Your task to perform on an android device: Open wifi settings Image 0: 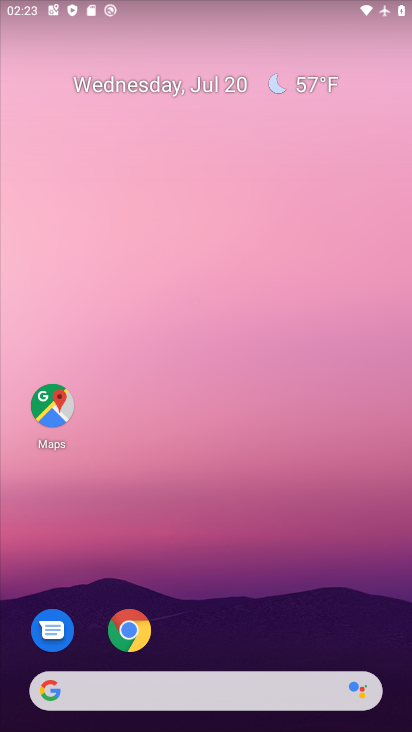
Step 0: drag from (290, 493) to (333, 67)
Your task to perform on an android device: Open wifi settings Image 1: 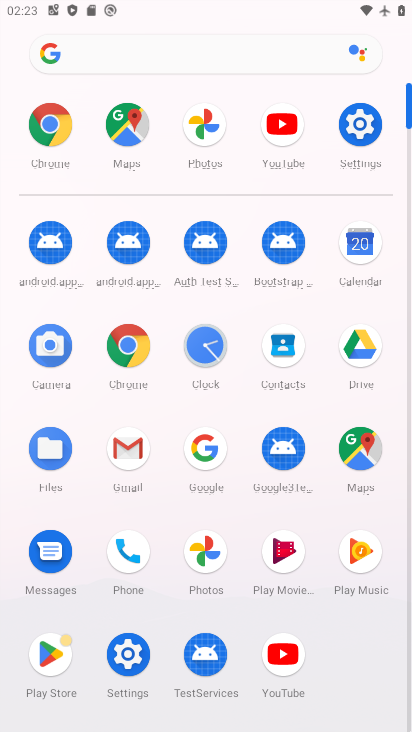
Step 1: click (366, 112)
Your task to perform on an android device: Open wifi settings Image 2: 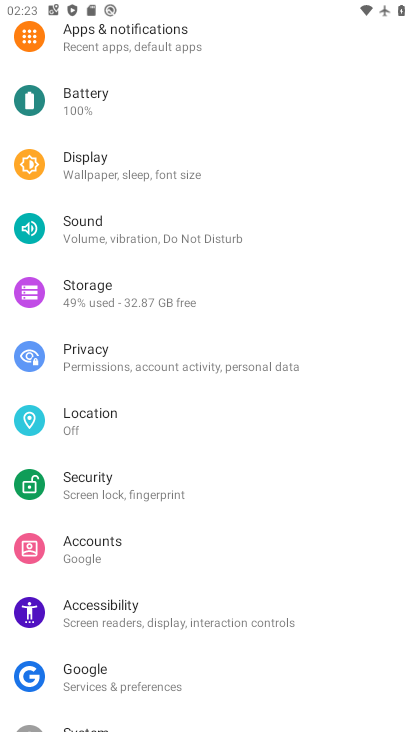
Step 2: drag from (135, 131) to (158, 607)
Your task to perform on an android device: Open wifi settings Image 3: 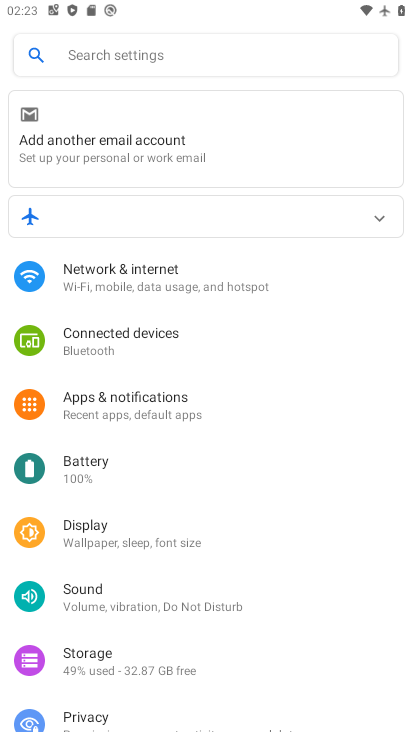
Step 3: click (169, 264)
Your task to perform on an android device: Open wifi settings Image 4: 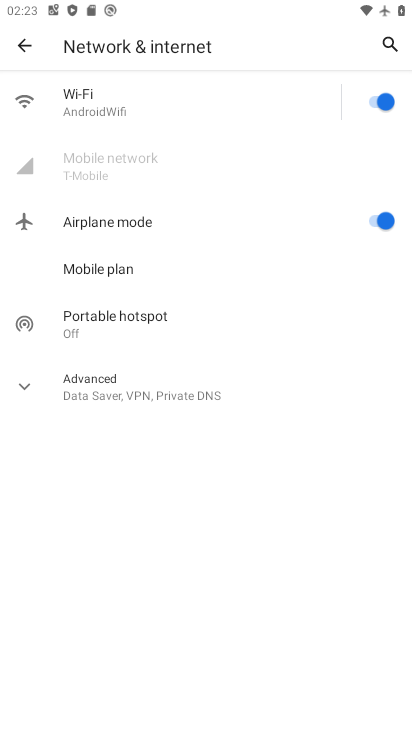
Step 4: click (103, 100)
Your task to perform on an android device: Open wifi settings Image 5: 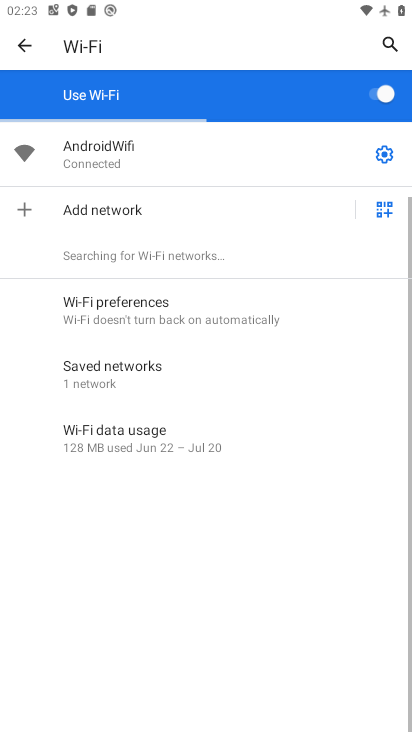
Step 5: click (391, 146)
Your task to perform on an android device: Open wifi settings Image 6: 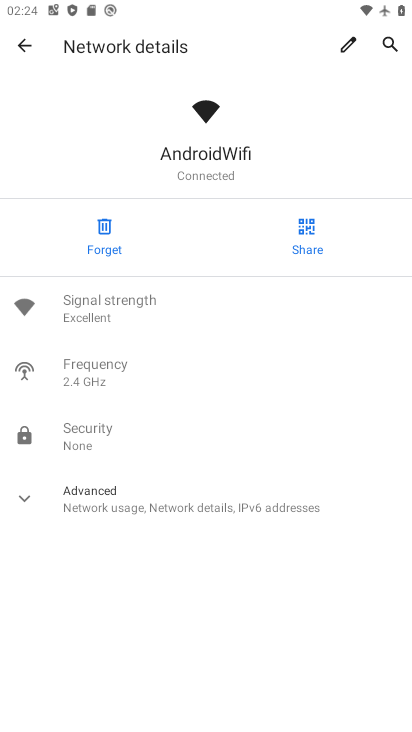
Step 6: task complete